Your task to perform on an android device: Is it going to rain this weekend? Image 0: 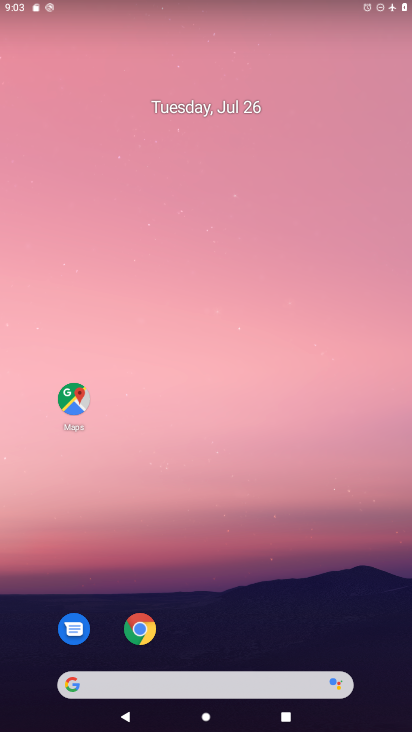
Step 0: drag from (174, 649) to (152, 69)
Your task to perform on an android device: Is it going to rain this weekend? Image 1: 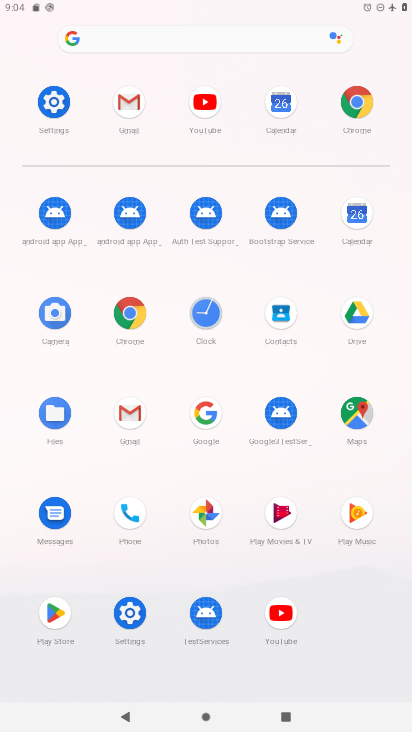
Step 1: click (209, 416)
Your task to perform on an android device: Is it going to rain this weekend? Image 2: 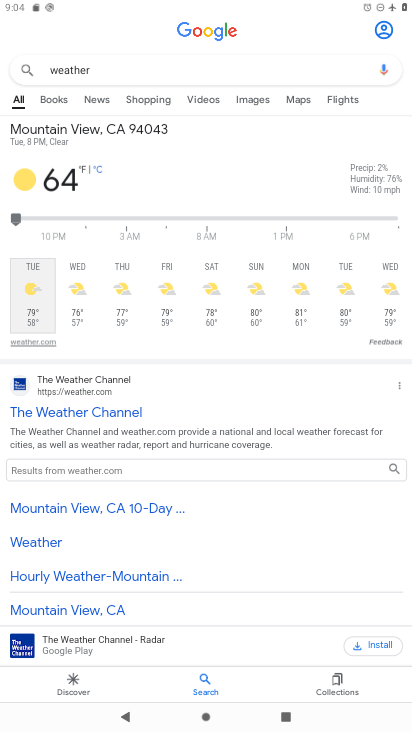
Step 2: task complete